Your task to perform on an android device: toggle data saver in the chrome app Image 0: 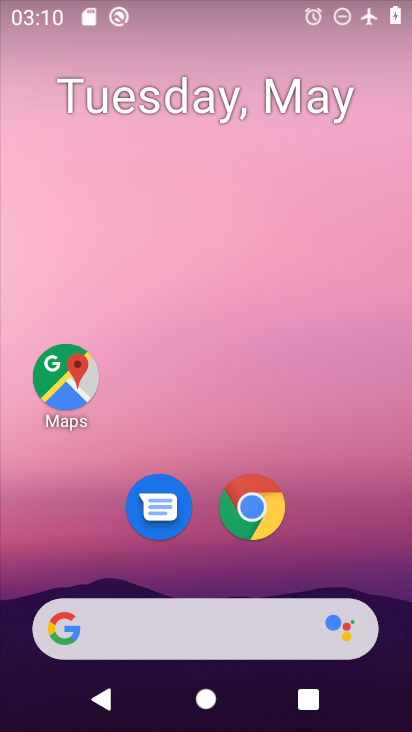
Step 0: click (265, 494)
Your task to perform on an android device: toggle data saver in the chrome app Image 1: 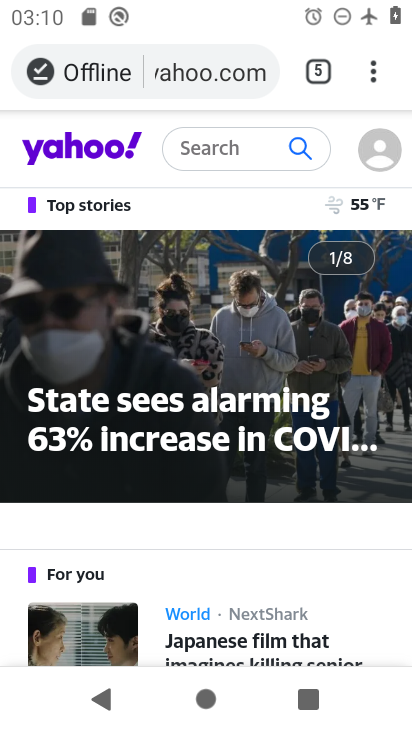
Step 1: drag from (364, 56) to (193, 509)
Your task to perform on an android device: toggle data saver in the chrome app Image 2: 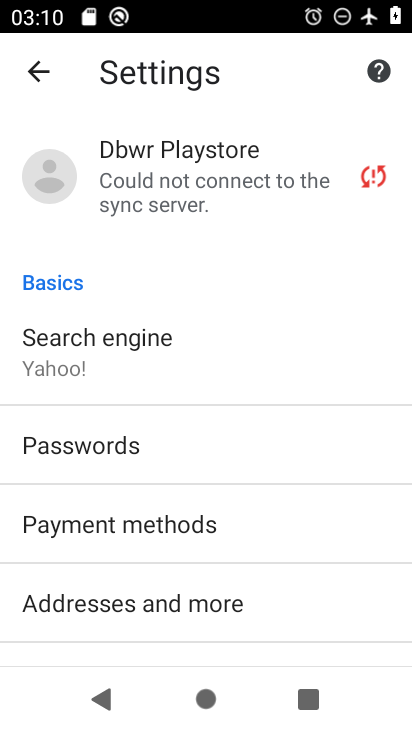
Step 2: drag from (205, 586) to (218, 185)
Your task to perform on an android device: toggle data saver in the chrome app Image 3: 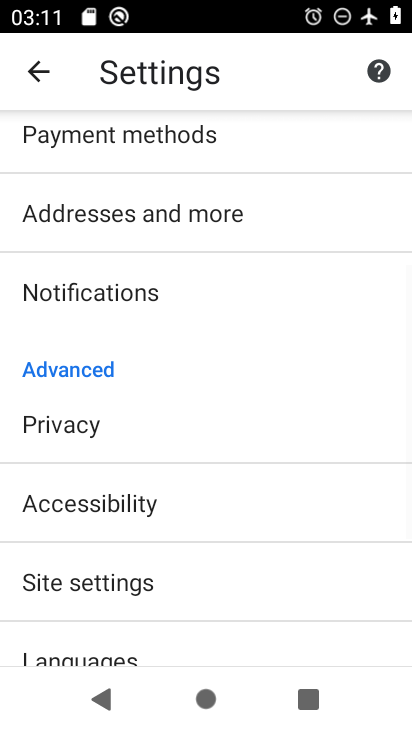
Step 3: drag from (213, 565) to (219, 325)
Your task to perform on an android device: toggle data saver in the chrome app Image 4: 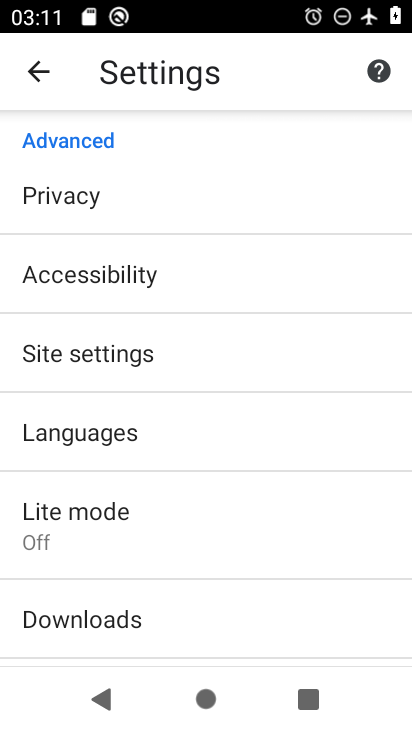
Step 4: click (163, 517)
Your task to perform on an android device: toggle data saver in the chrome app Image 5: 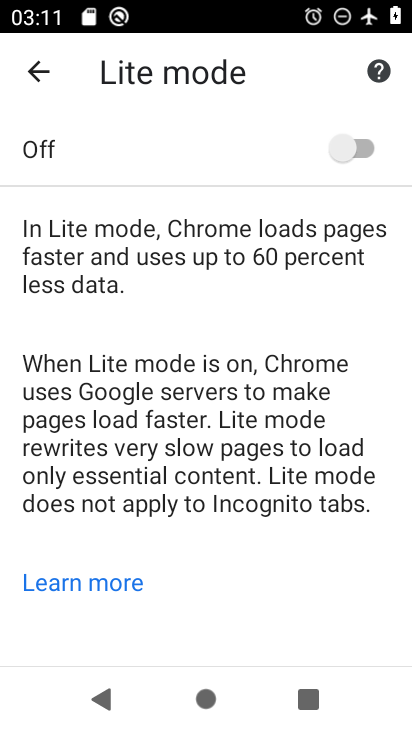
Step 5: click (365, 150)
Your task to perform on an android device: toggle data saver in the chrome app Image 6: 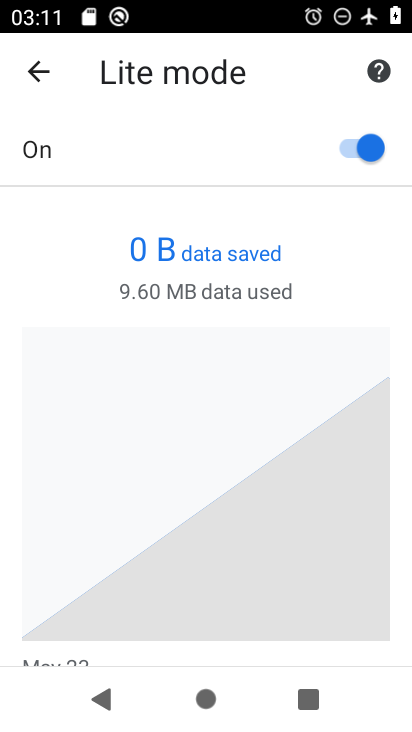
Step 6: task complete